Your task to perform on an android device: Open settings Image 0: 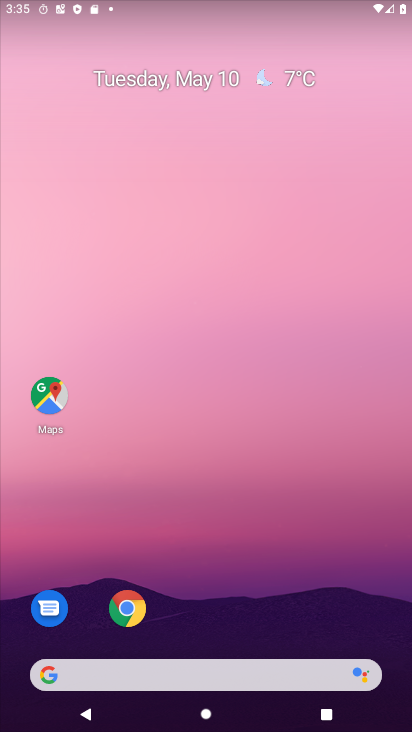
Step 0: drag from (260, 633) to (256, 29)
Your task to perform on an android device: Open settings Image 1: 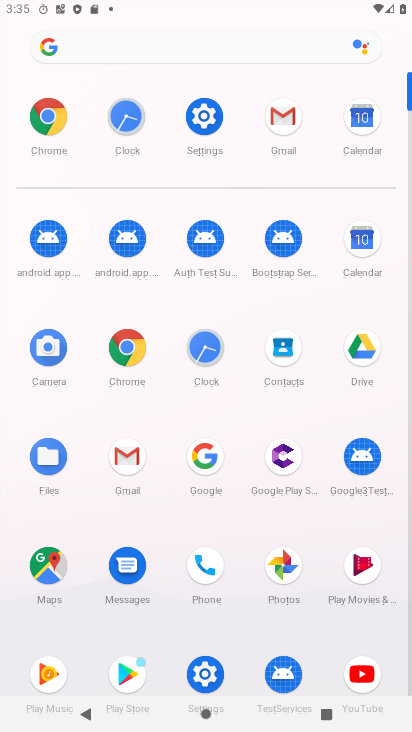
Step 1: click (203, 121)
Your task to perform on an android device: Open settings Image 2: 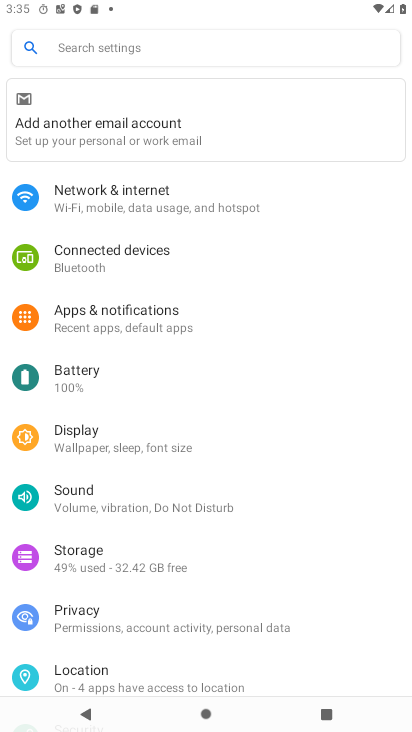
Step 2: task complete